Your task to perform on an android device: Go to wifi settings Image 0: 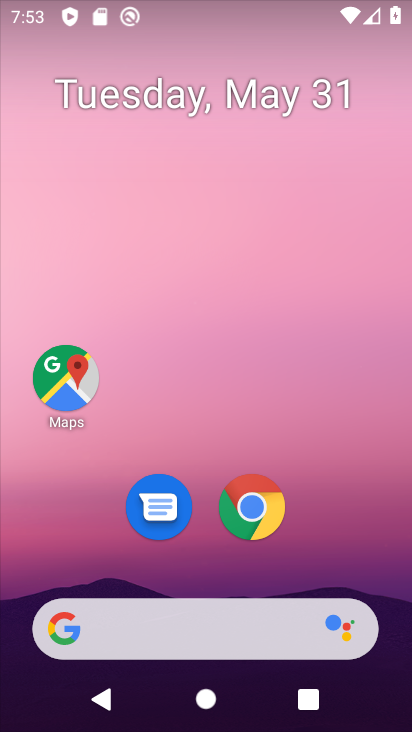
Step 0: drag from (290, 7) to (250, 364)
Your task to perform on an android device: Go to wifi settings Image 1: 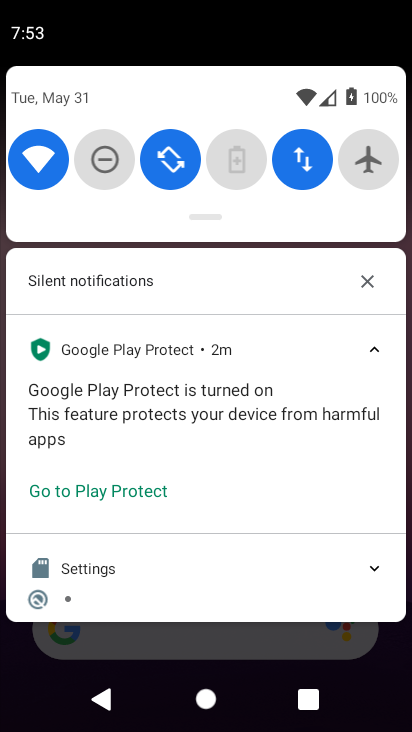
Step 1: click (30, 162)
Your task to perform on an android device: Go to wifi settings Image 2: 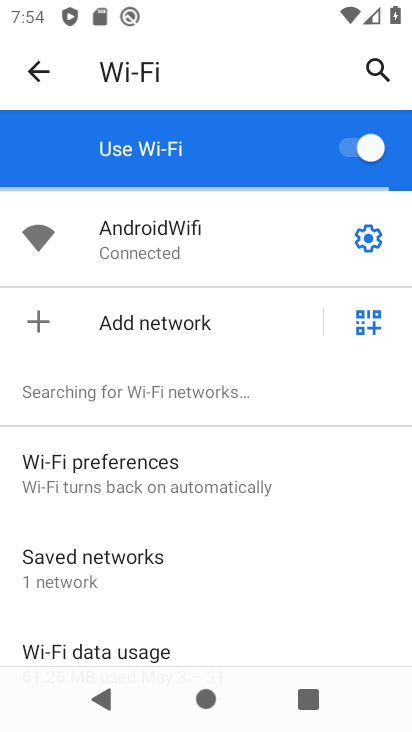
Step 2: click (376, 236)
Your task to perform on an android device: Go to wifi settings Image 3: 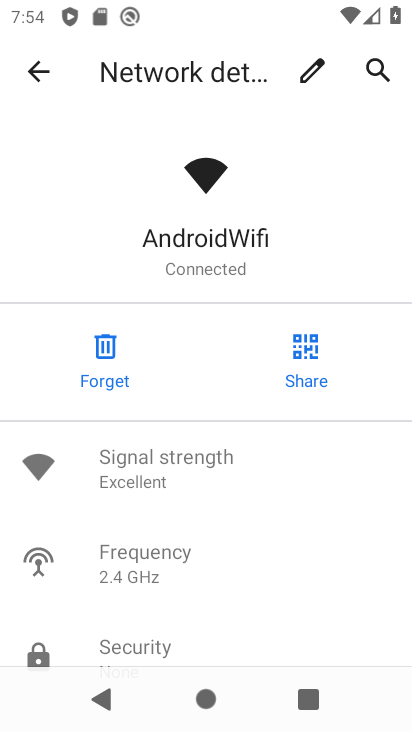
Step 3: task complete